Your task to perform on an android device: clear history in the chrome app Image 0: 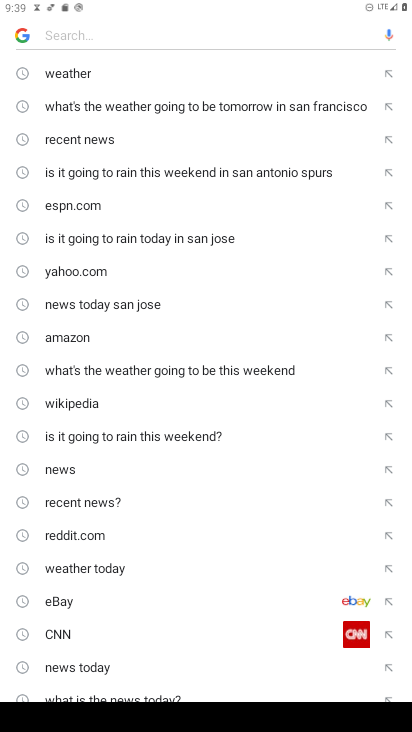
Step 0: press home button
Your task to perform on an android device: clear history in the chrome app Image 1: 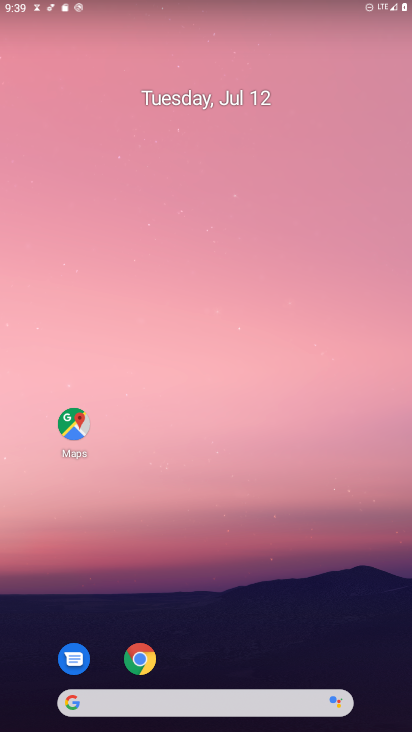
Step 1: click (139, 660)
Your task to perform on an android device: clear history in the chrome app Image 2: 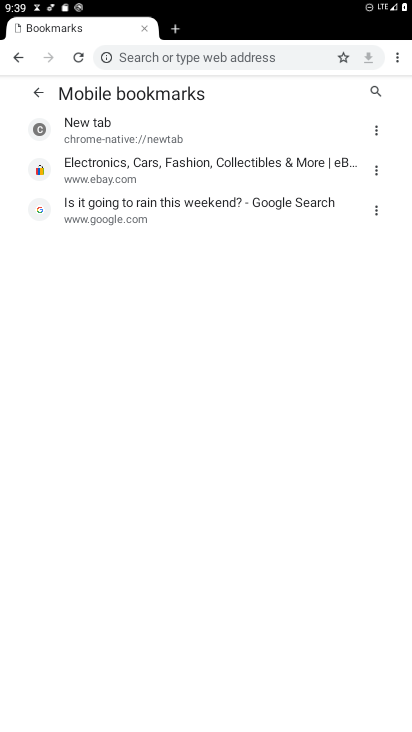
Step 2: click (399, 60)
Your task to perform on an android device: clear history in the chrome app Image 3: 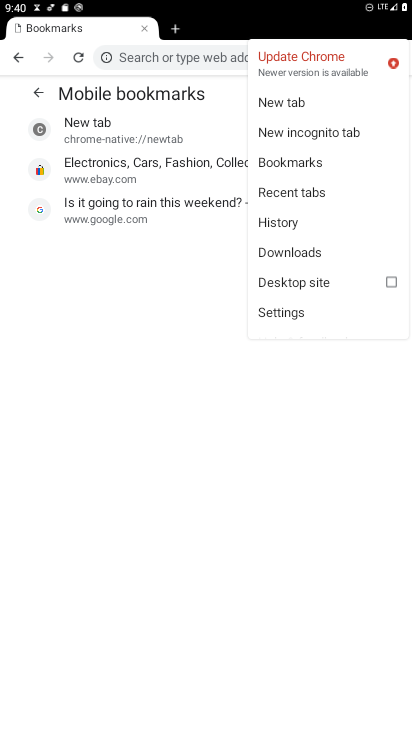
Step 3: click (301, 223)
Your task to perform on an android device: clear history in the chrome app Image 4: 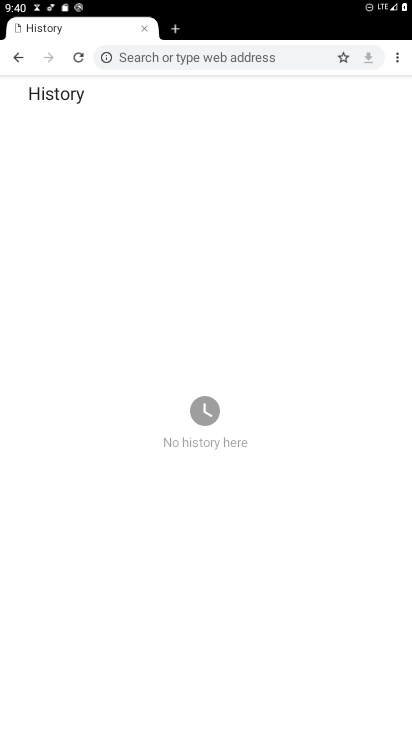
Step 4: task complete